Your task to perform on an android device: allow cookies in the chrome app Image 0: 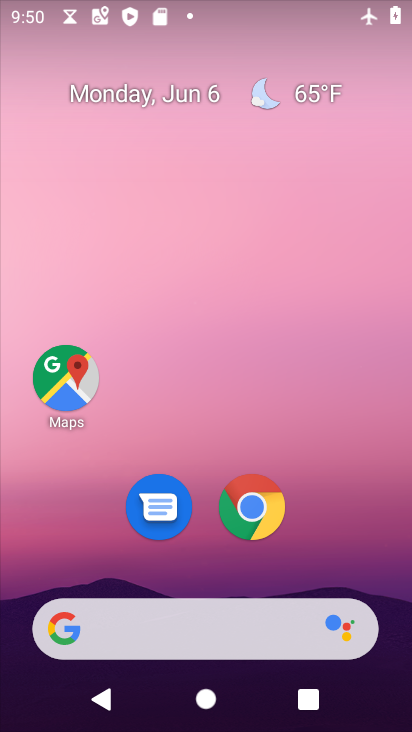
Step 0: click (260, 496)
Your task to perform on an android device: allow cookies in the chrome app Image 1: 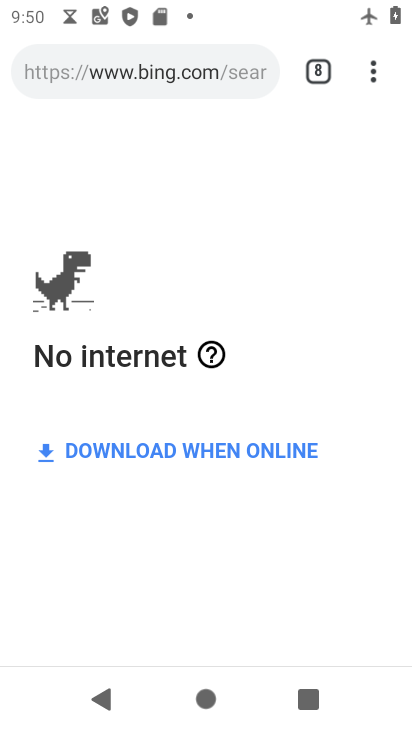
Step 1: click (363, 67)
Your task to perform on an android device: allow cookies in the chrome app Image 2: 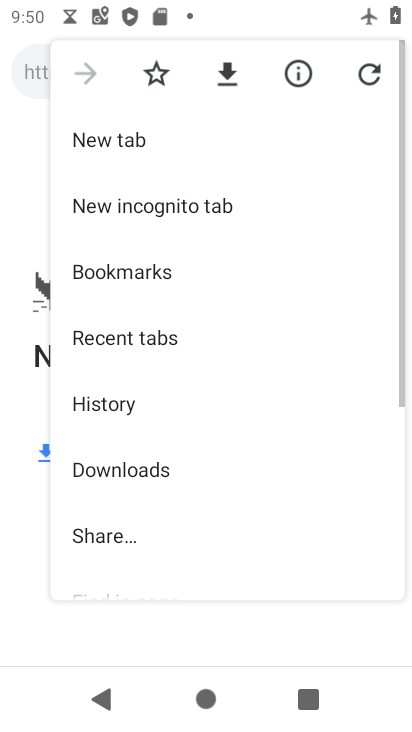
Step 2: drag from (153, 506) to (185, 213)
Your task to perform on an android device: allow cookies in the chrome app Image 3: 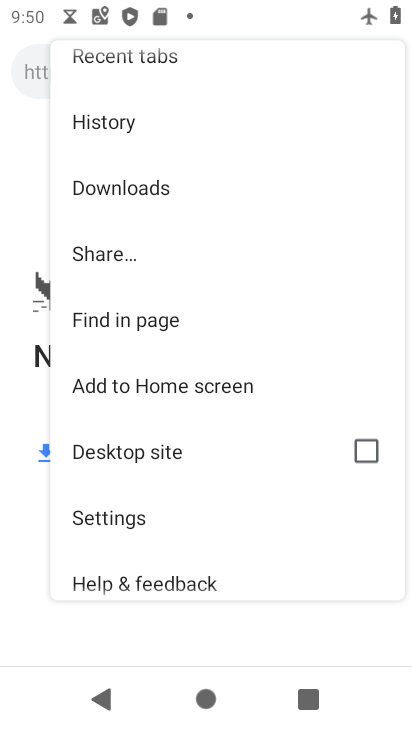
Step 3: click (130, 507)
Your task to perform on an android device: allow cookies in the chrome app Image 4: 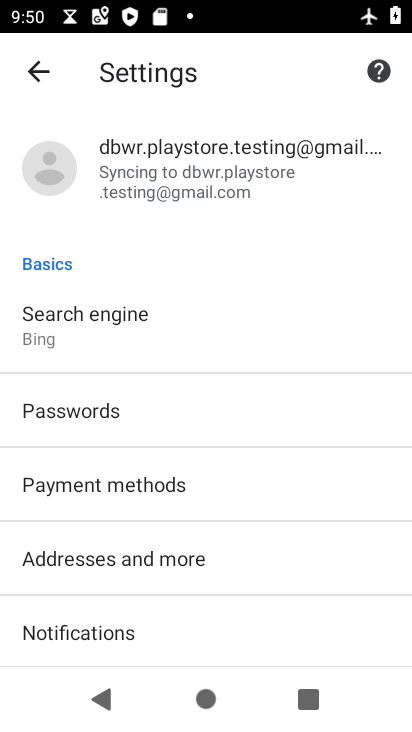
Step 4: drag from (184, 618) to (237, 293)
Your task to perform on an android device: allow cookies in the chrome app Image 5: 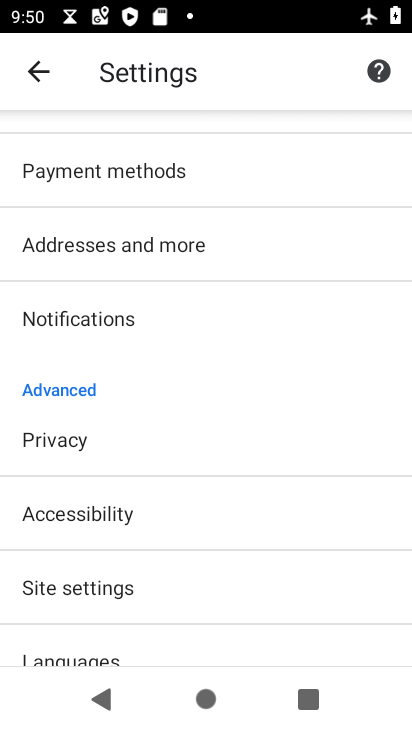
Step 5: click (117, 598)
Your task to perform on an android device: allow cookies in the chrome app Image 6: 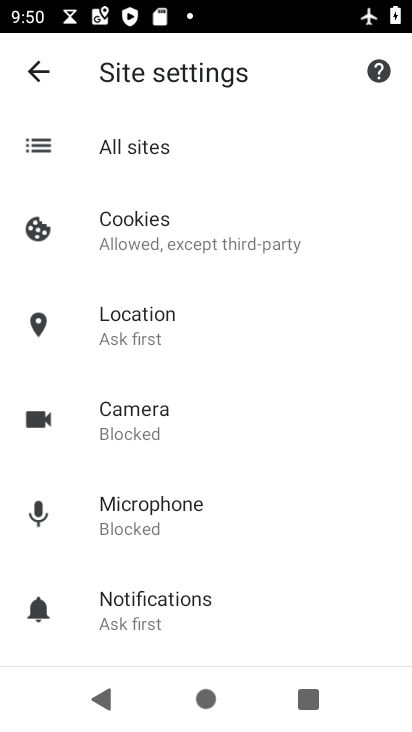
Step 6: click (120, 220)
Your task to perform on an android device: allow cookies in the chrome app Image 7: 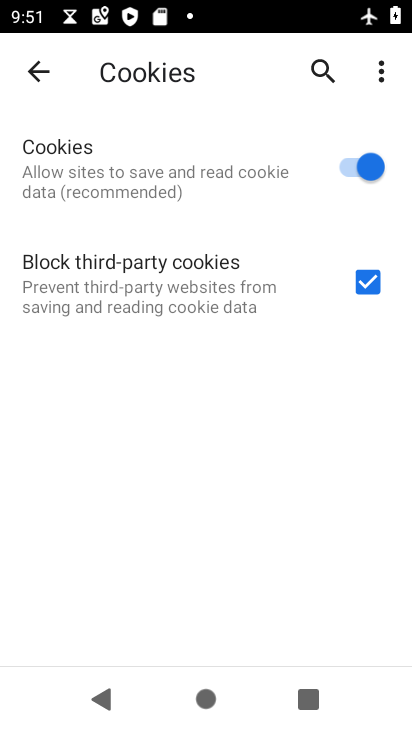
Step 7: task complete